Your task to perform on an android device: turn off improve location accuracy Image 0: 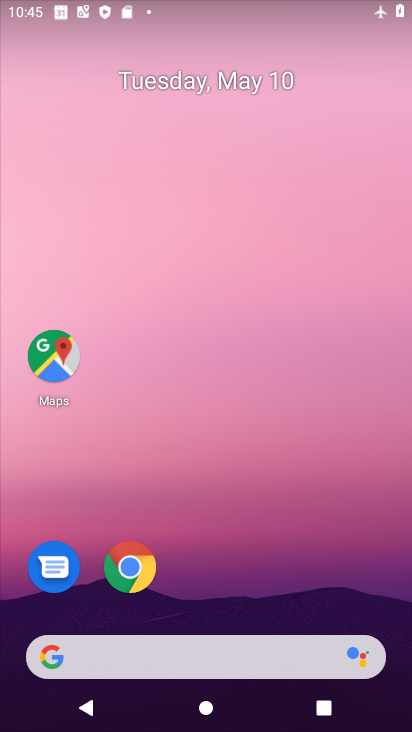
Step 0: press home button
Your task to perform on an android device: turn off improve location accuracy Image 1: 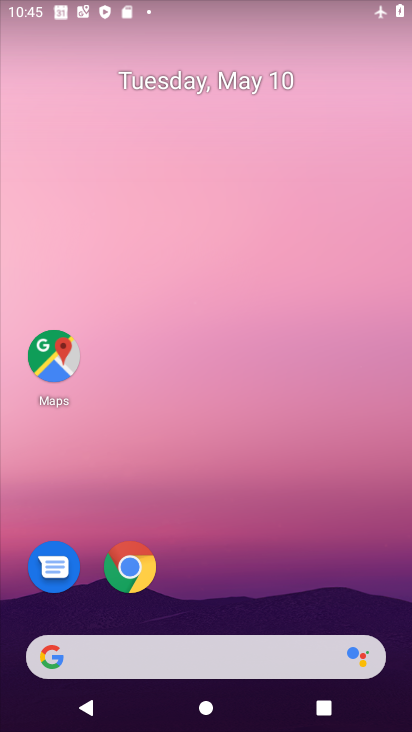
Step 1: drag from (23, 574) to (206, 143)
Your task to perform on an android device: turn off improve location accuracy Image 2: 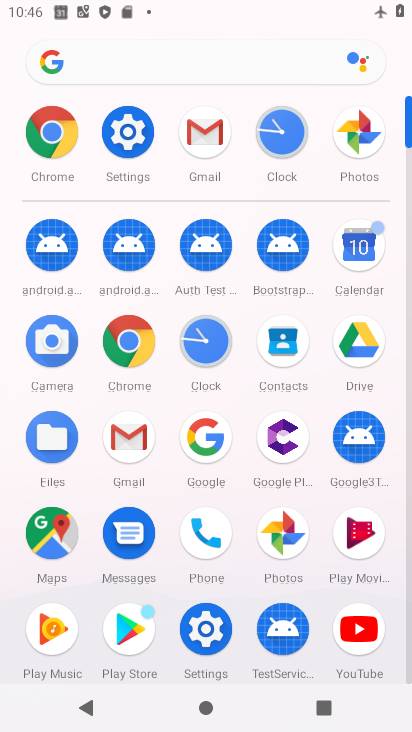
Step 2: click (131, 119)
Your task to perform on an android device: turn off improve location accuracy Image 3: 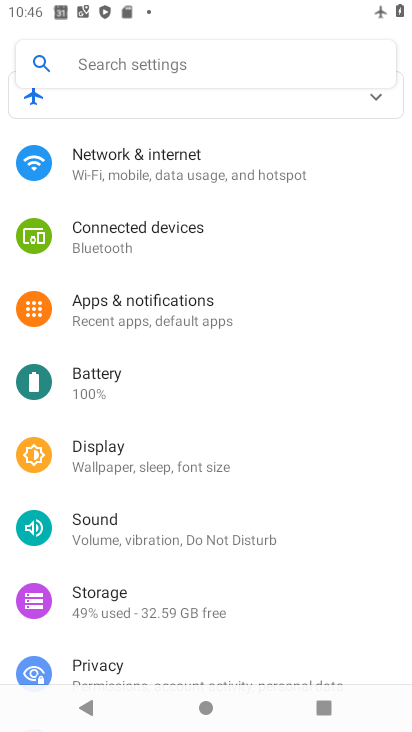
Step 3: drag from (102, 628) to (221, 197)
Your task to perform on an android device: turn off improve location accuracy Image 4: 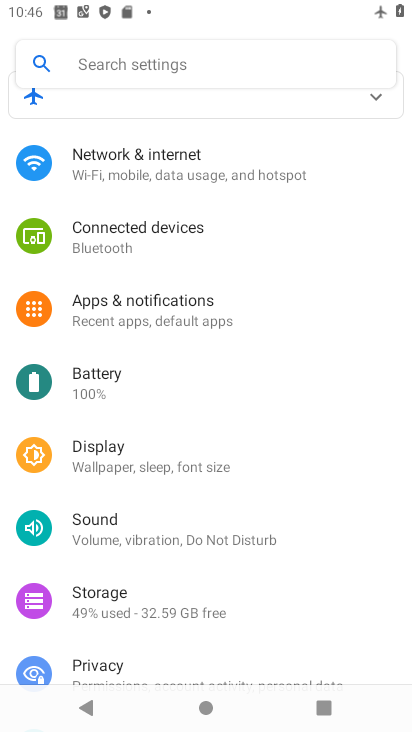
Step 4: drag from (41, 538) to (218, 192)
Your task to perform on an android device: turn off improve location accuracy Image 5: 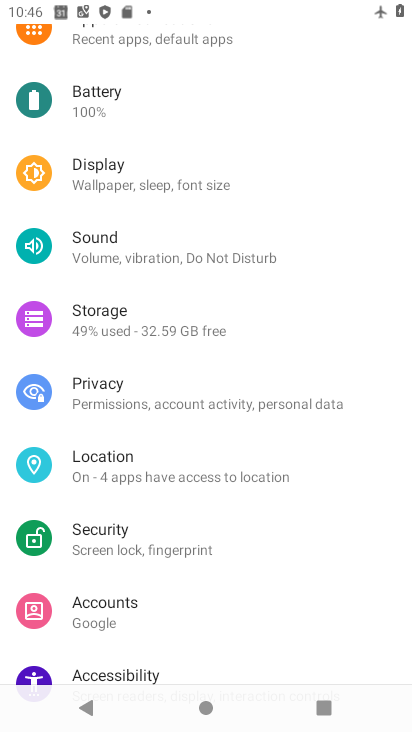
Step 5: click (172, 462)
Your task to perform on an android device: turn off improve location accuracy Image 6: 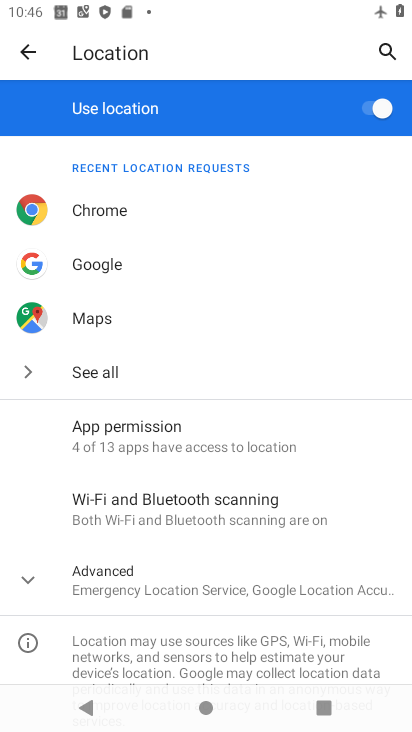
Step 6: click (198, 597)
Your task to perform on an android device: turn off improve location accuracy Image 7: 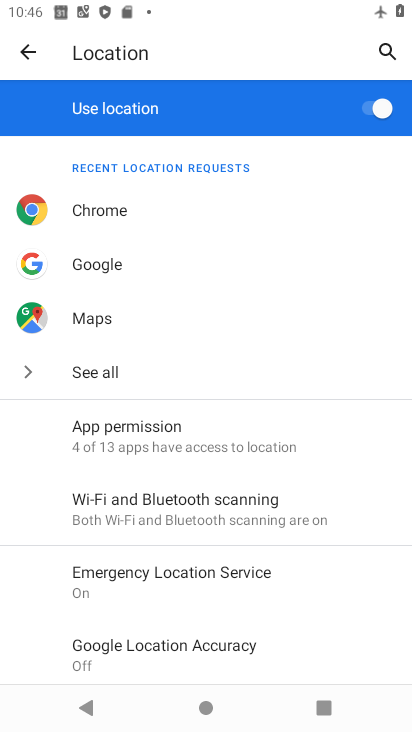
Step 7: click (108, 659)
Your task to perform on an android device: turn off improve location accuracy Image 8: 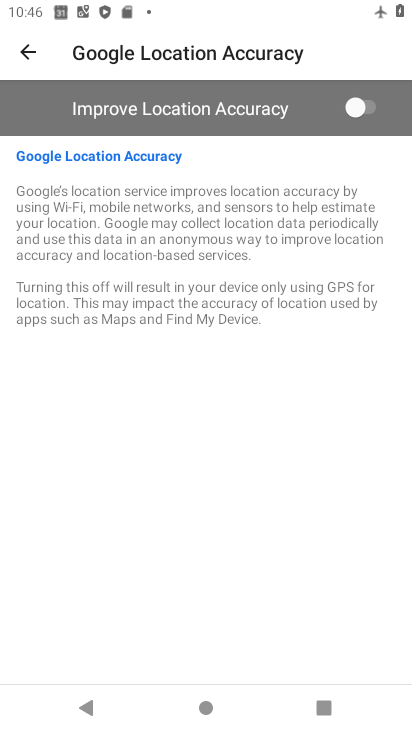
Step 8: task complete